Your task to perform on an android device: uninstall "Facebook Messenger" Image 0: 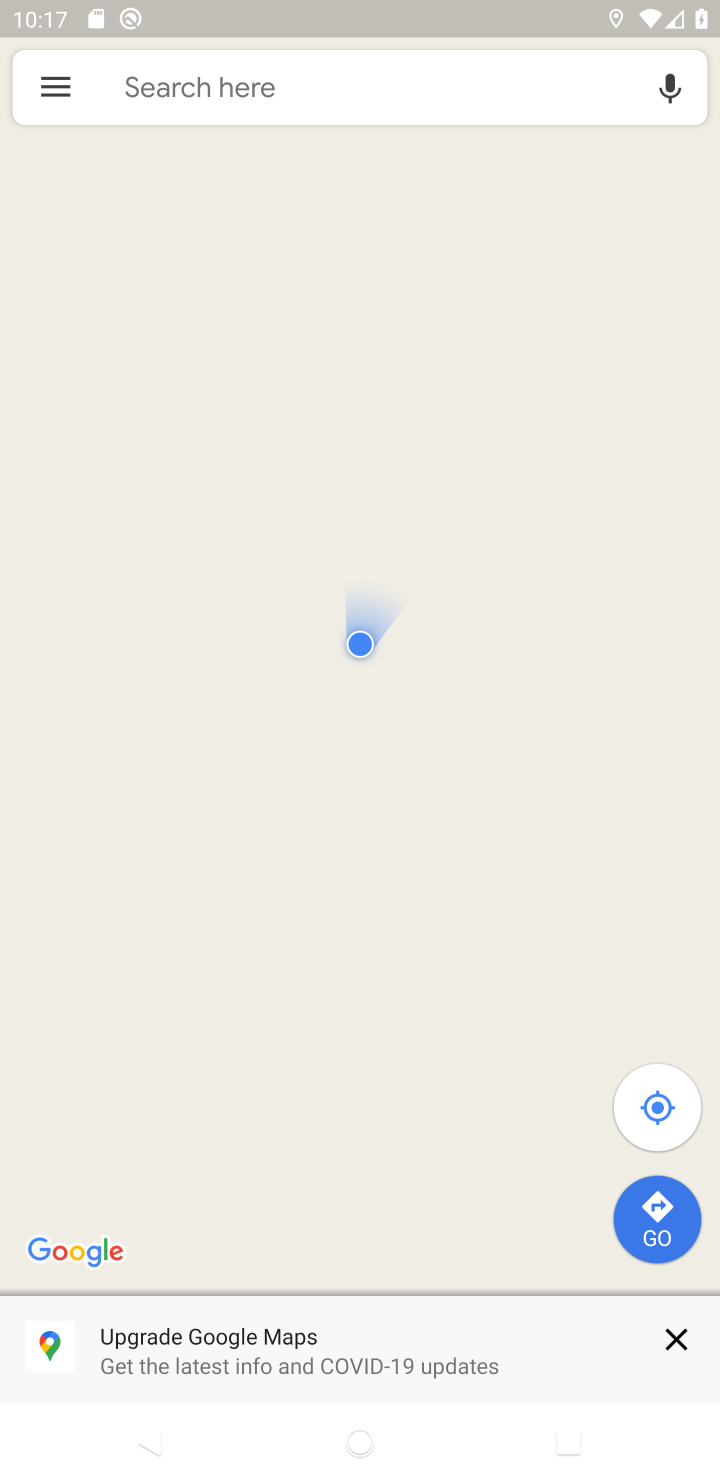
Step 0: press home button
Your task to perform on an android device: uninstall "Facebook Messenger" Image 1: 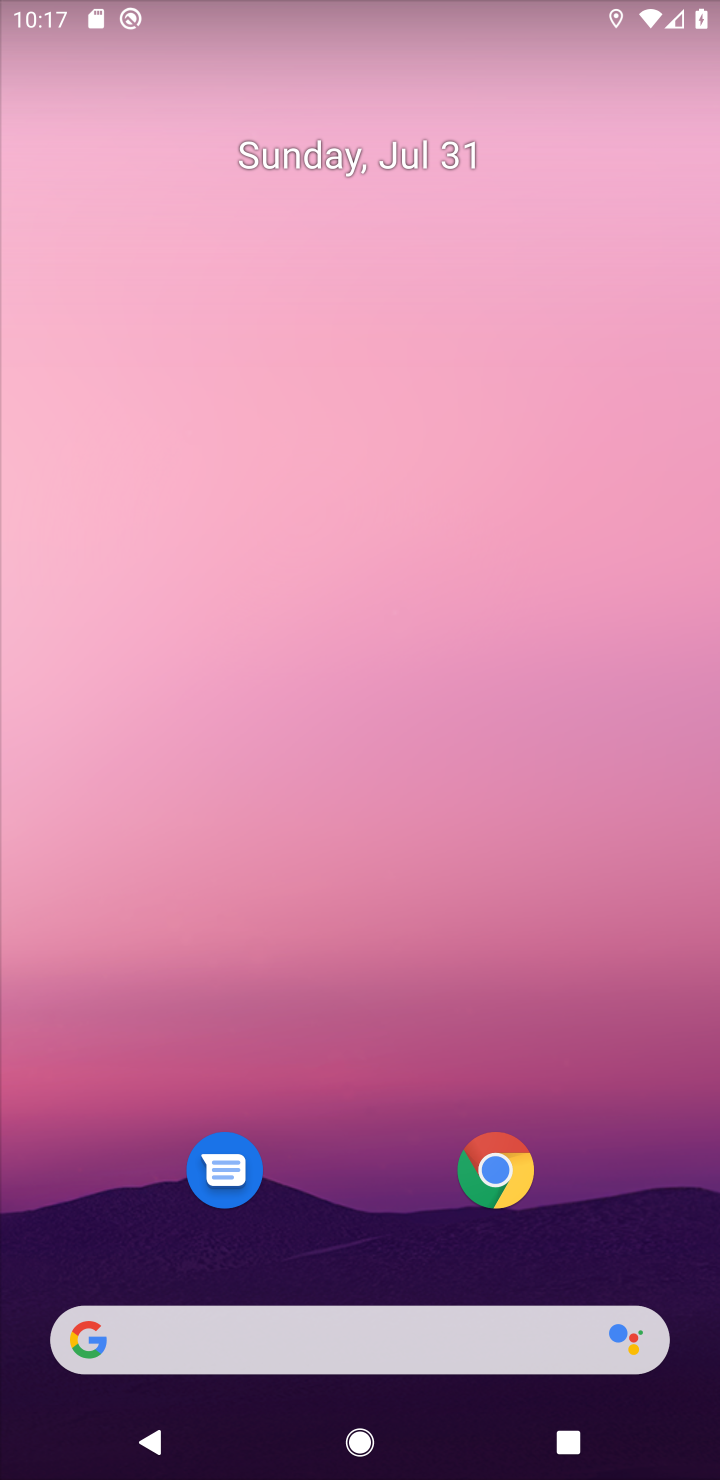
Step 1: drag from (398, 341) to (319, 25)
Your task to perform on an android device: uninstall "Facebook Messenger" Image 2: 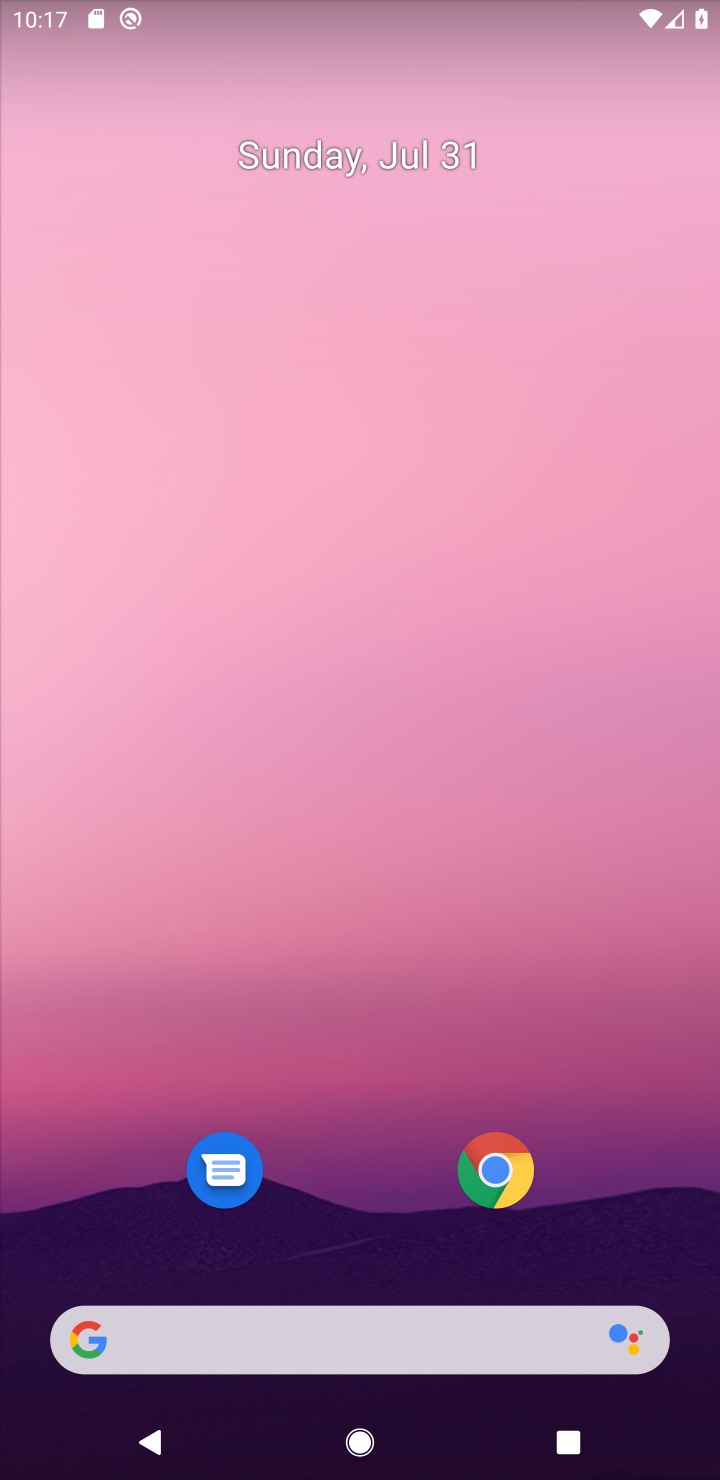
Step 2: drag from (651, 1200) to (395, 148)
Your task to perform on an android device: uninstall "Facebook Messenger" Image 3: 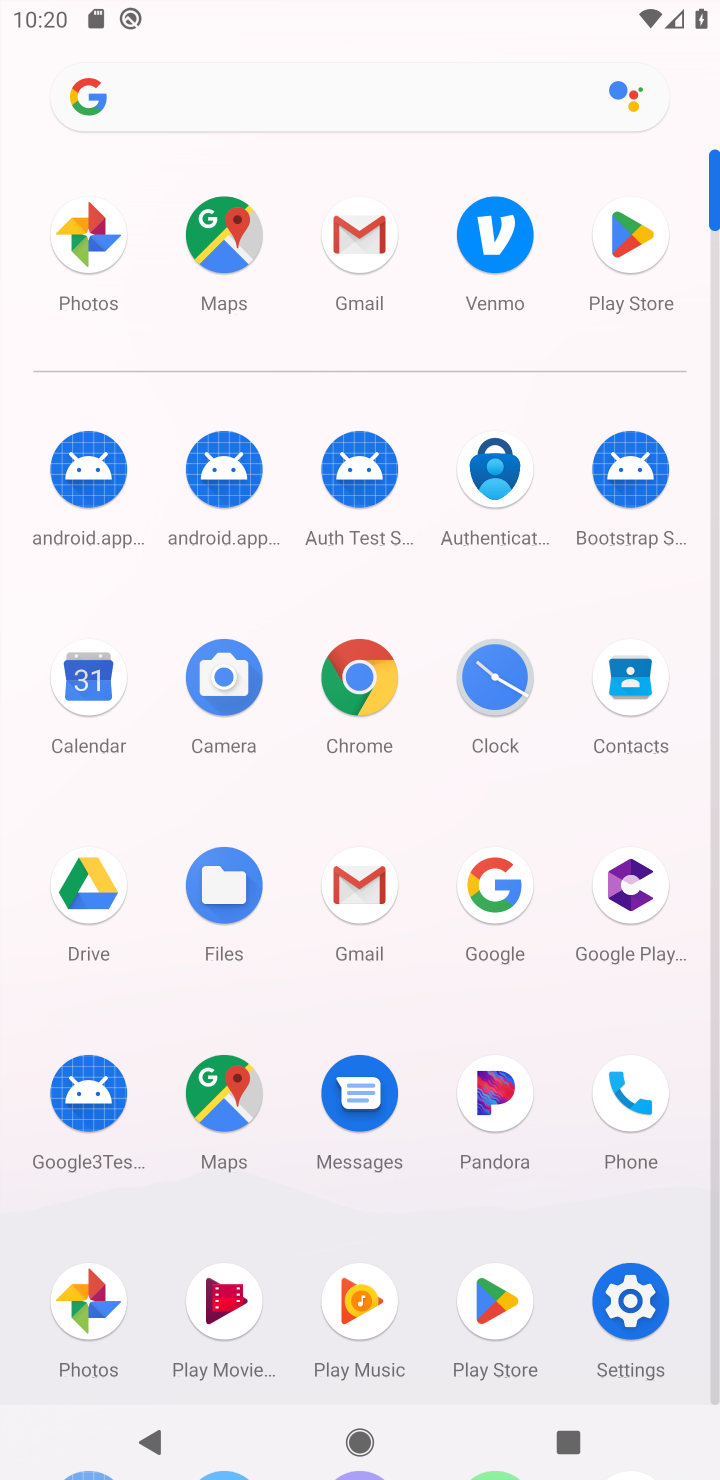
Step 3: click (616, 230)
Your task to perform on an android device: uninstall "Facebook Messenger" Image 4: 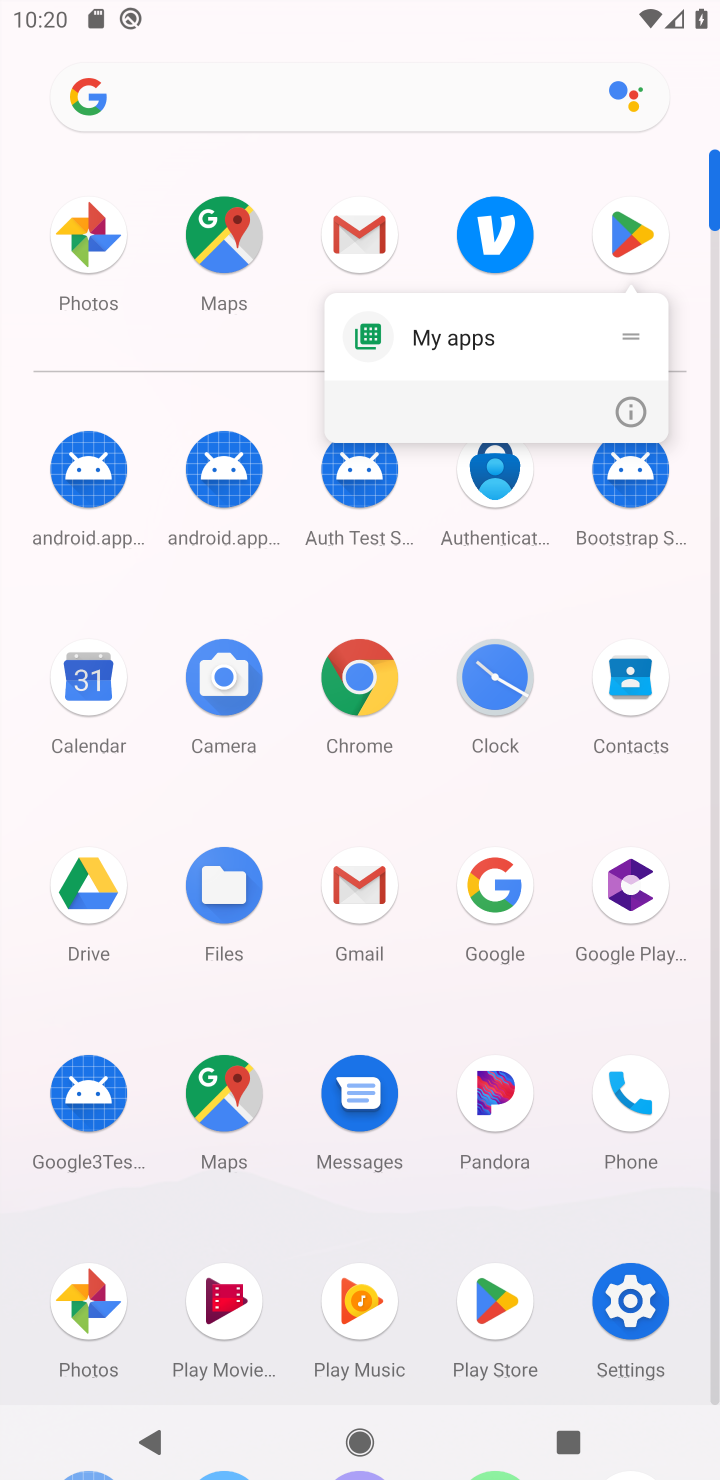
Step 4: click (616, 230)
Your task to perform on an android device: uninstall "Facebook Messenger" Image 5: 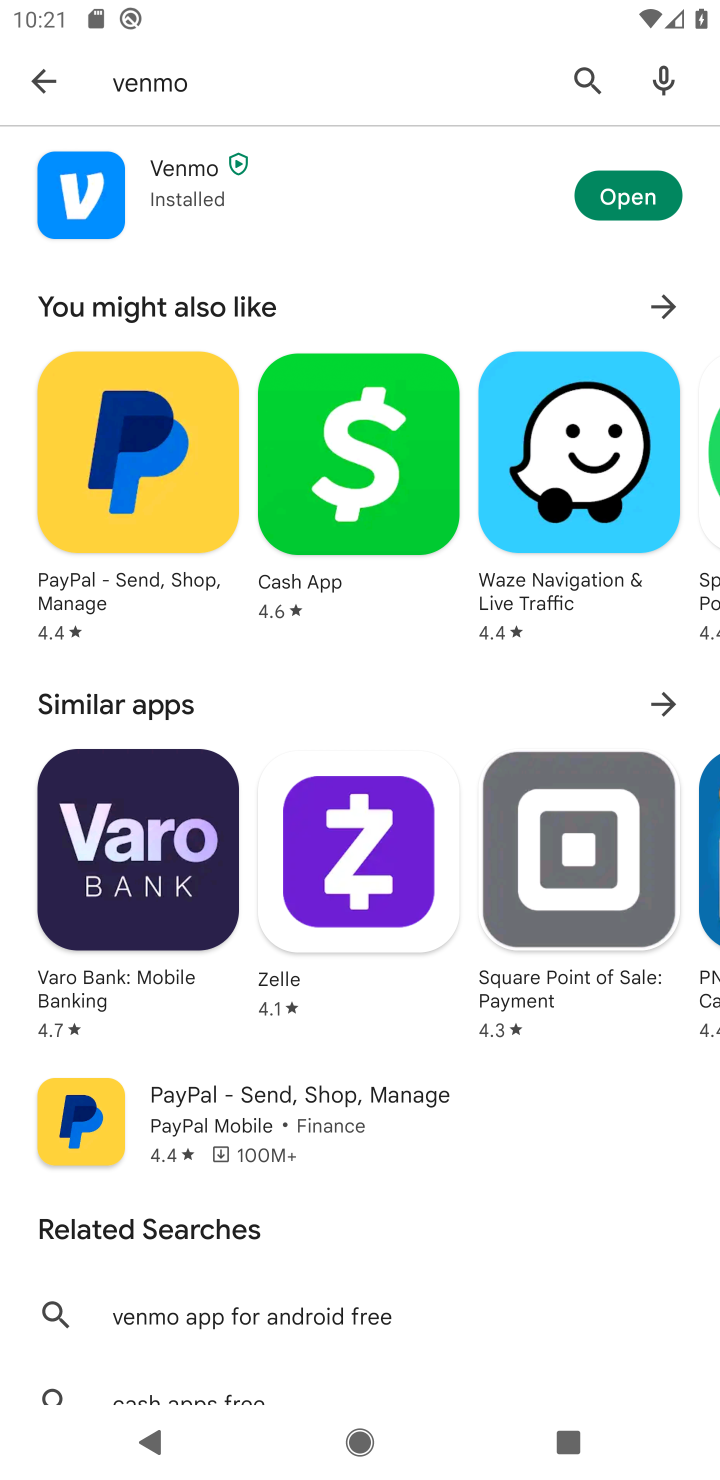
Step 5: press back button
Your task to perform on an android device: uninstall "Facebook Messenger" Image 6: 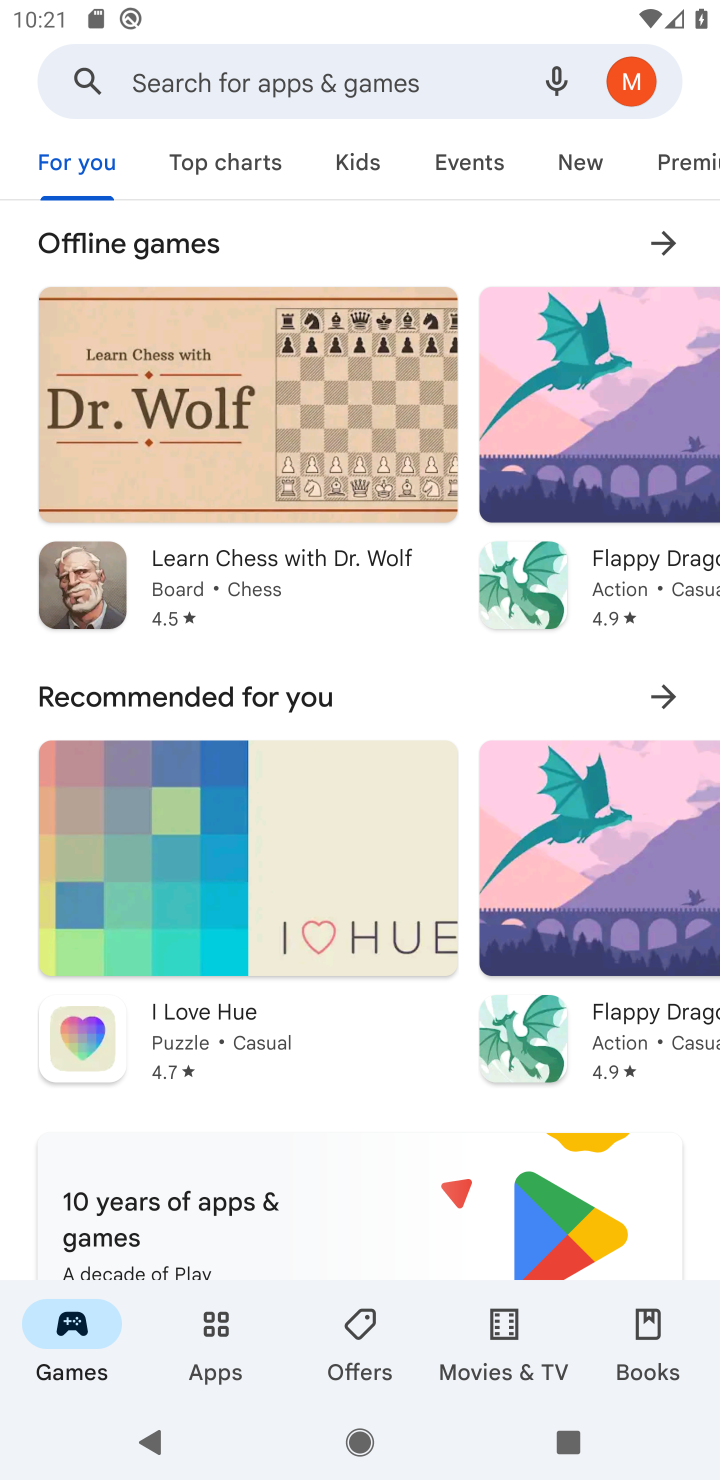
Step 6: click (195, 83)
Your task to perform on an android device: uninstall "Facebook Messenger" Image 7: 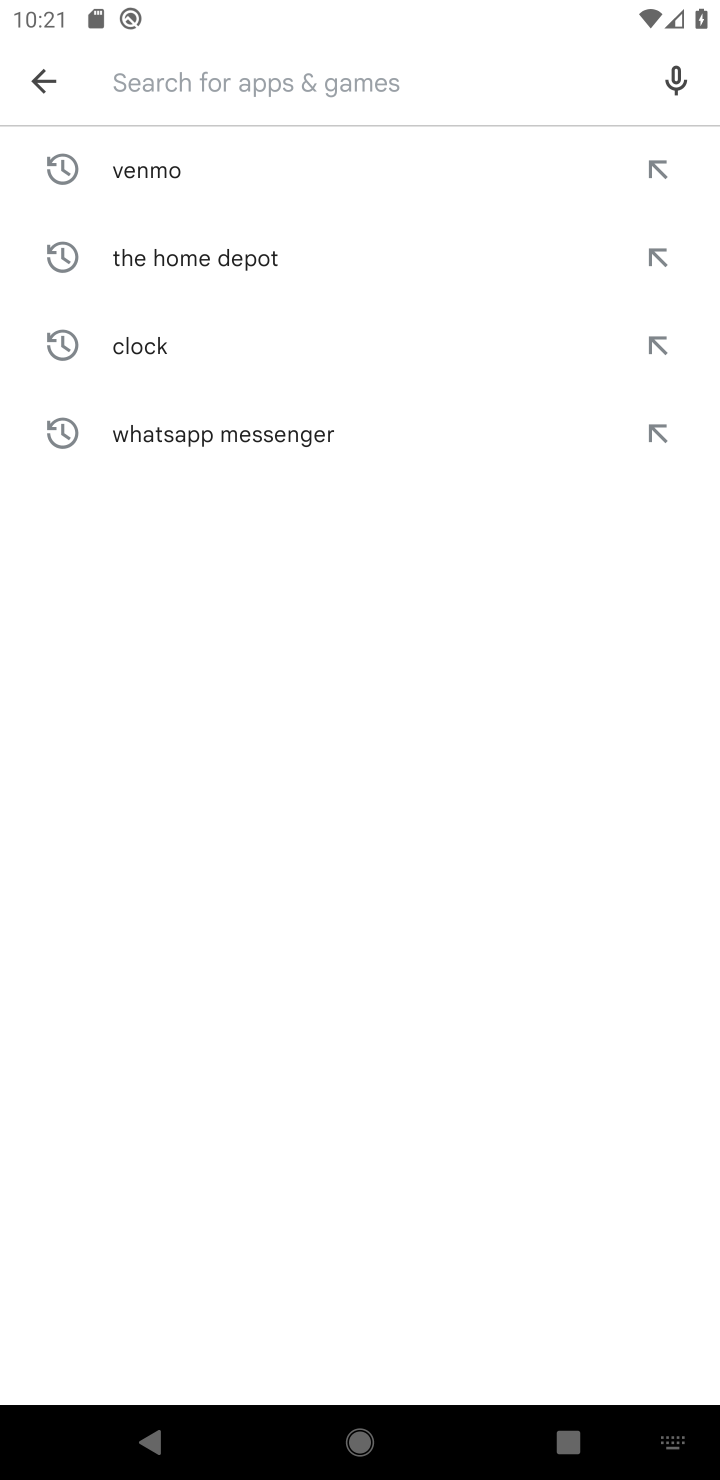
Step 7: type "Facebook Messenger"
Your task to perform on an android device: uninstall "Facebook Messenger" Image 8: 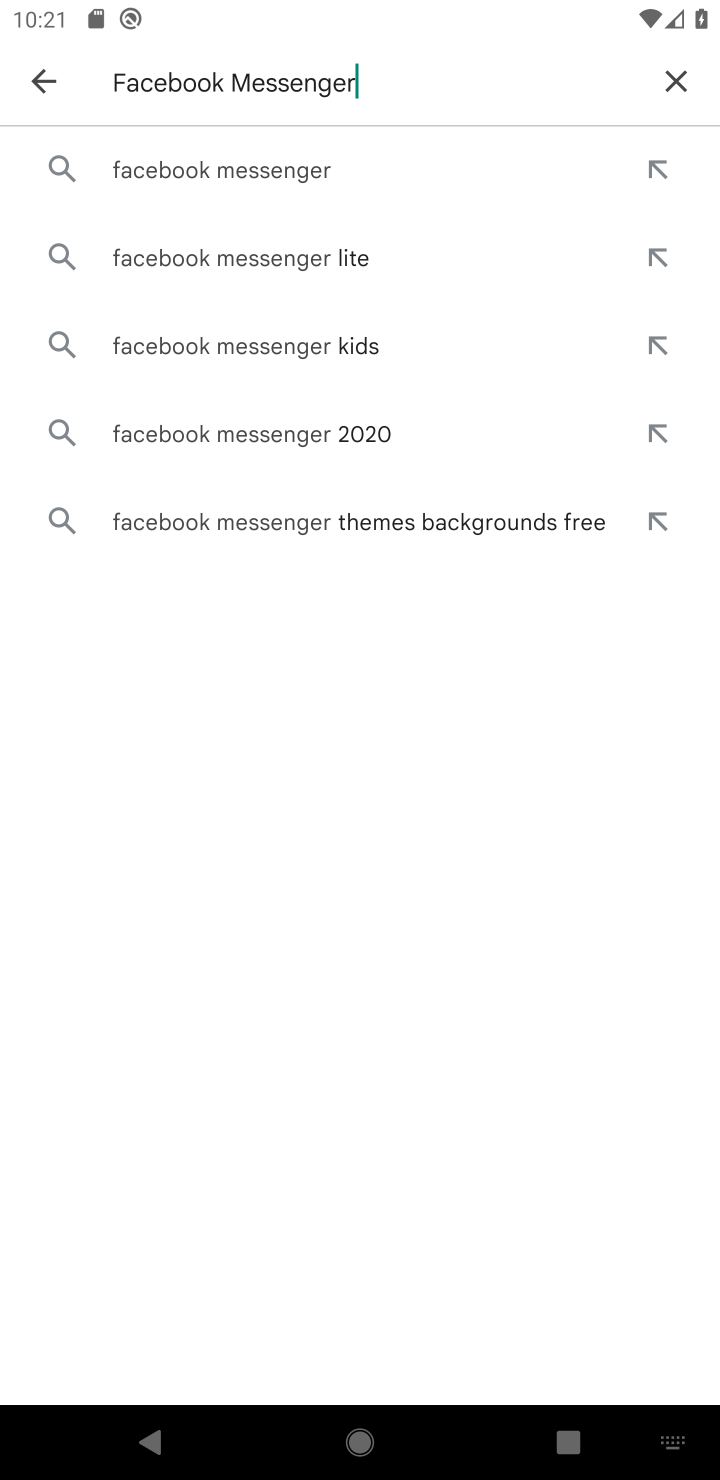
Step 8: click (233, 174)
Your task to perform on an android device: uninstall "Facebook Messenger" Image 9: 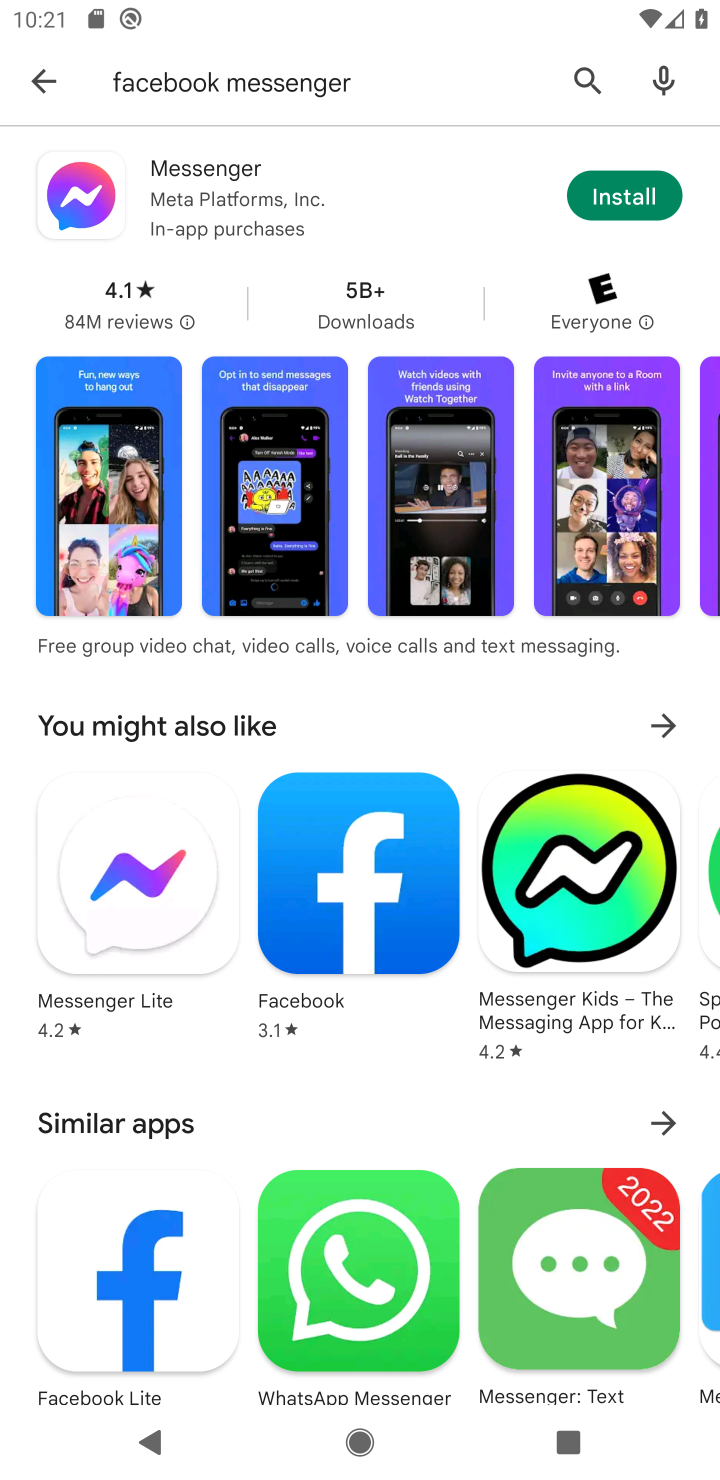
Step 9: task complete